Your task to perform on an android device: check storage Image 0: 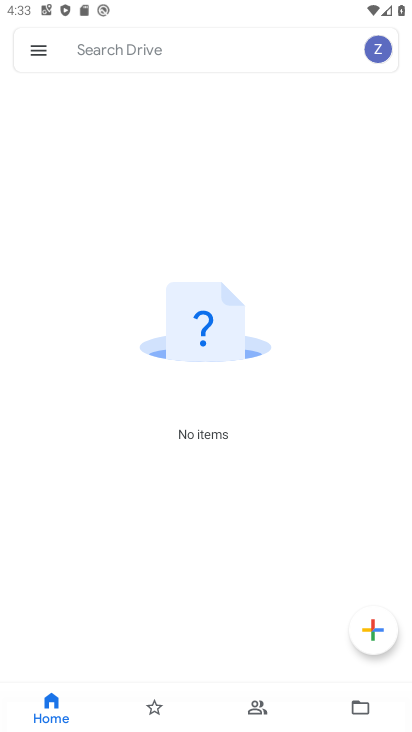
Step 0: press home button
Your task to perform on an android device: check storage Image 1: 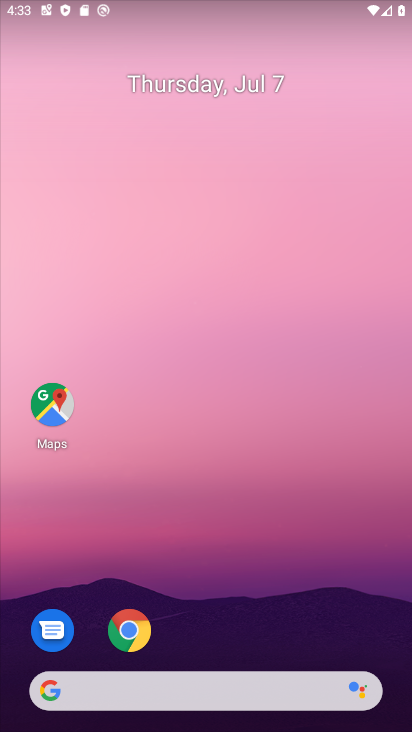
Step 1: drag from (164, 646) to (181, 60)
Your task to perform on an android device: check storage Image 2: 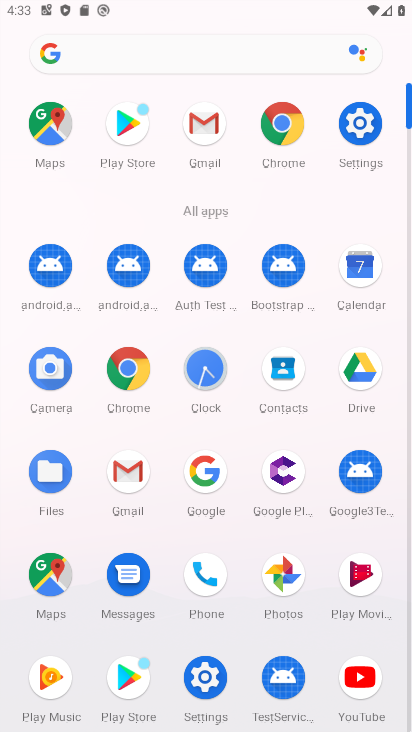
Step 2: click (371, 116)
Your task to perform on an android device: check storage Image 3: 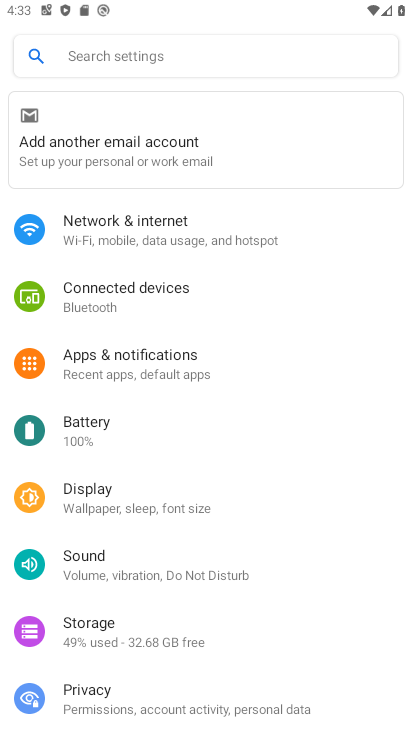
Step 3: click (130, 642)
Your task to perform on an android device: check storage Image 4: 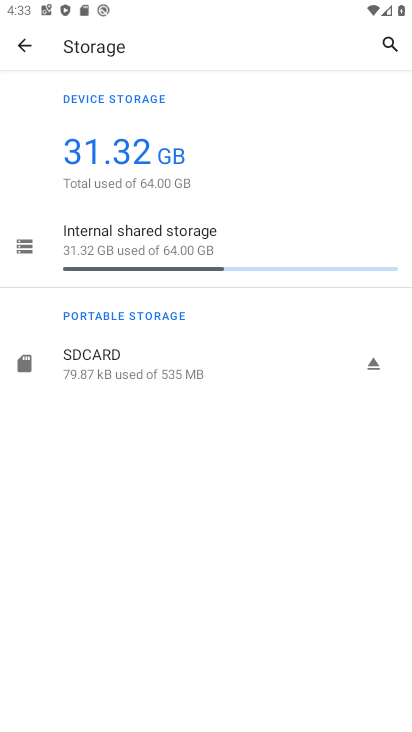
Step 4: task complete